Your task to perform on an android device: Go to Maps Image 0: 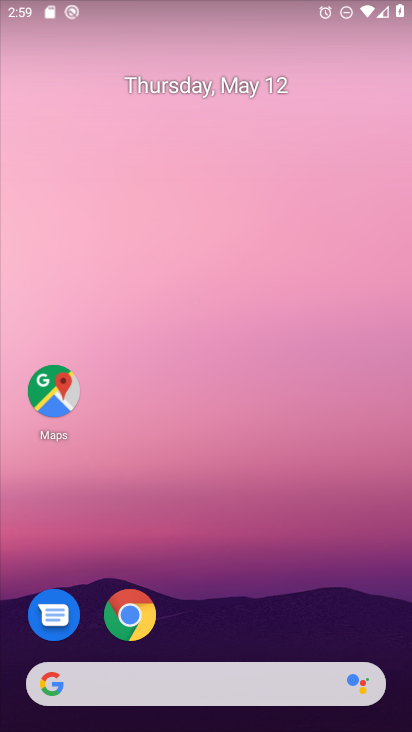
Step 0: drag from (307, 687) to (307, 61)
Your task to perform on an android device: Go to Maps Image 1: 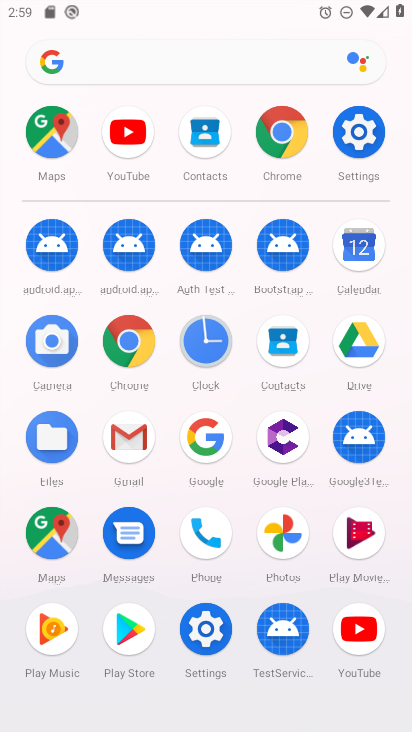
Step 1: click (59, 539)
Your task to perform on an android device: Go to Maps Image 2: 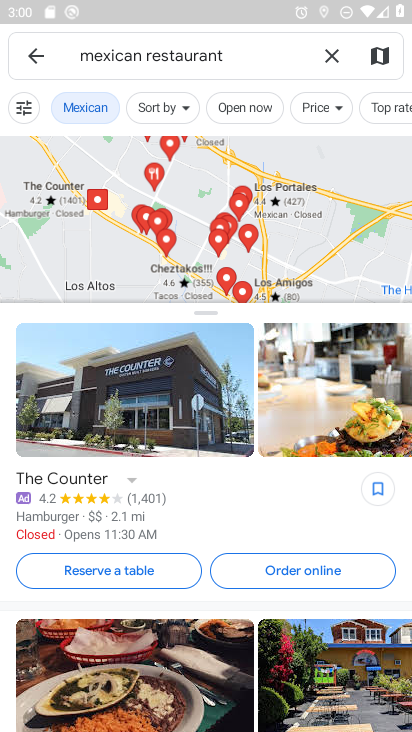
Step 2: task complete